Your task to perform on an android device: Clear the cart on ebay.com. Search for macbook air on ebay.com, select the first entry, and add it to the cart. Image 0: 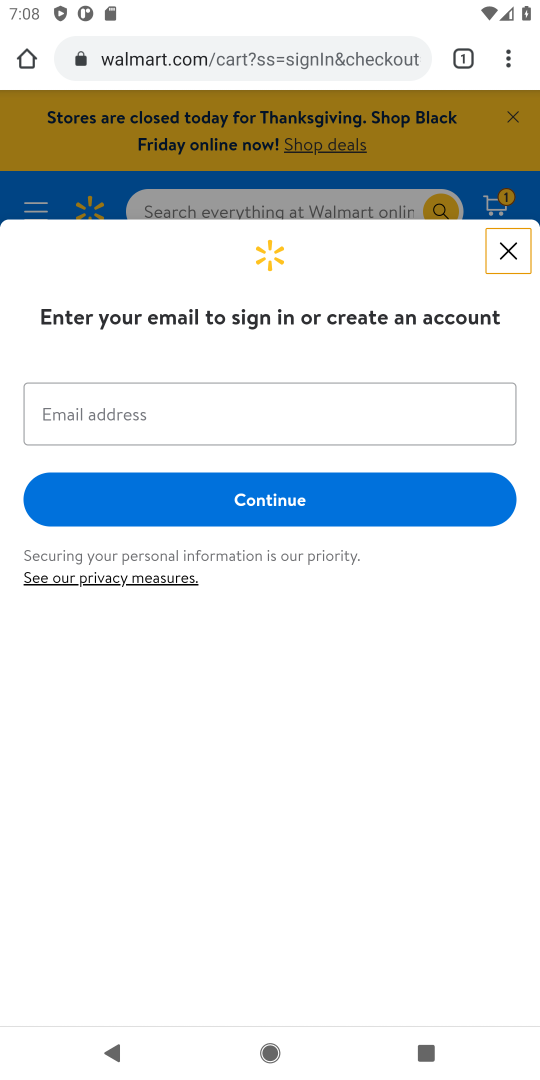
Step 0: click (182, 65)
Your task to perform on an android device: Clear the cart on ebay.com. Search for macbook air on ebay.com, select the first entry, and add it to the cart. Image 1: 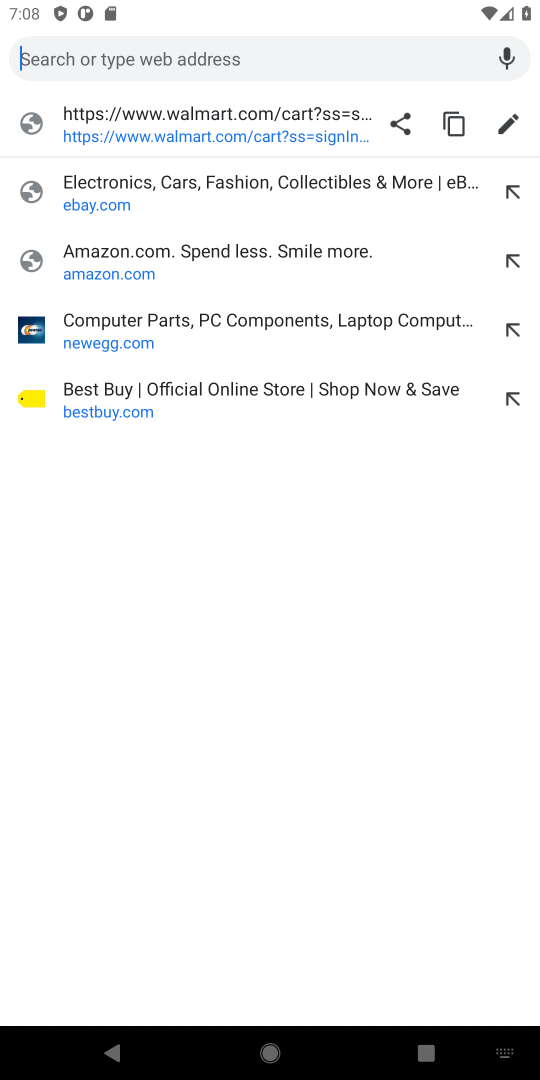
Step 1: click (86, 204)
Your task to perform on an android device: Clear the cart on ebay.com. Search for macbook air on ebay.com, select the first entry, and add it to the cart. Image 2: 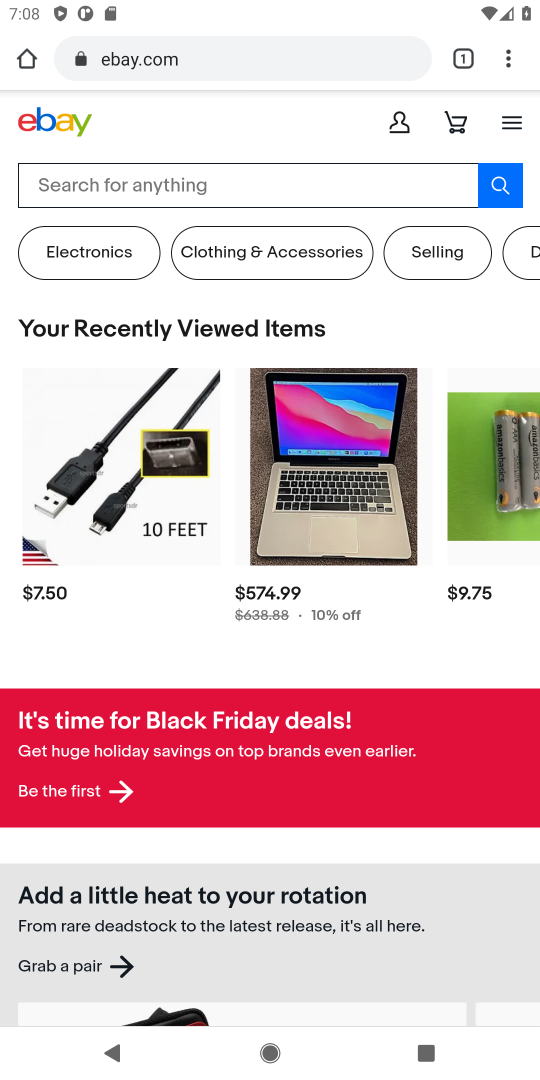
Step 2: click (449, 132)
Your task to perform on an android device: Clear the cart on ebay.com. Search for macbook air on ebay.com, select the first entry, and add it to the cart. Image 3: 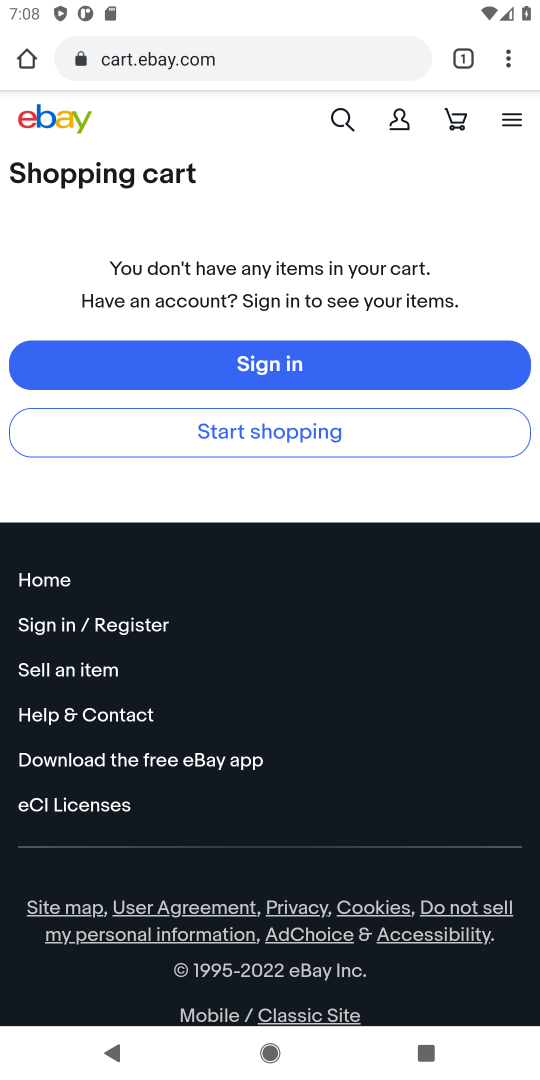
Step 3: click (336, 130)
Your task to perform on an android device: Clear the cart on ebay.com. Search for macbook air on ebay.com, select the first entry, and add it to the cart. Image 4: 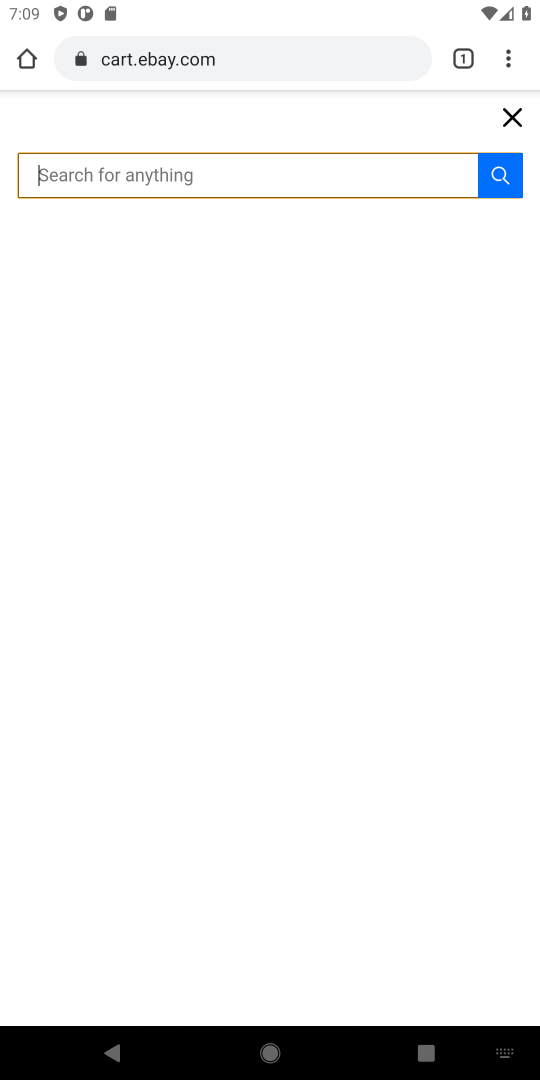
Step 4: type "macbook air"
Your task to perform on an android device: Clear the cart on ebay.com. Search for macbook air on ebay.com, select the first entry, and add it to the cart. Image 5: 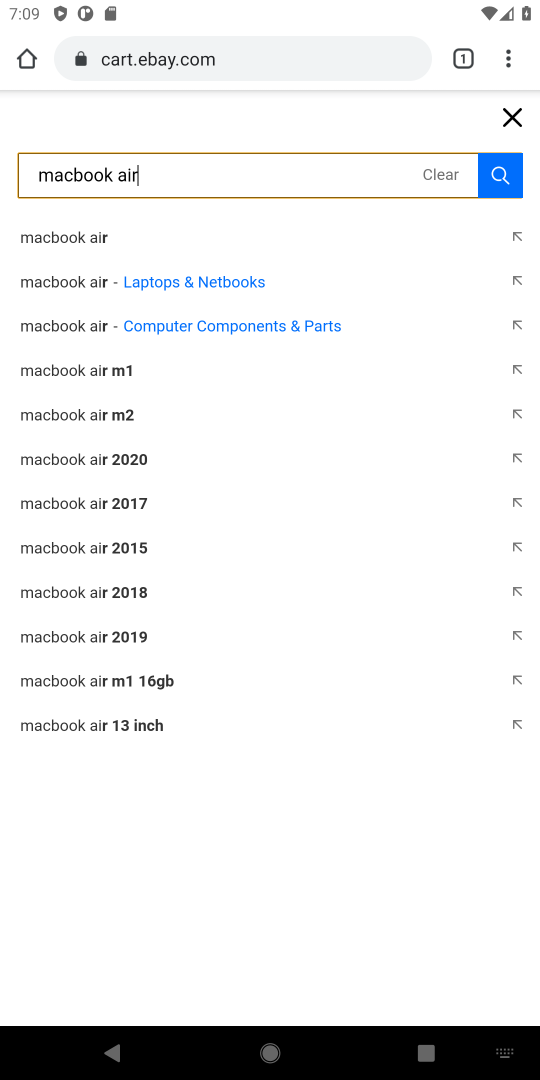
Step 5: click (65, 248)
Your task to perform on an android device: Clear the cart on ebay.com. Search for macbook air on ebay.com, select the first entry, and add it to the cart. Image 6: 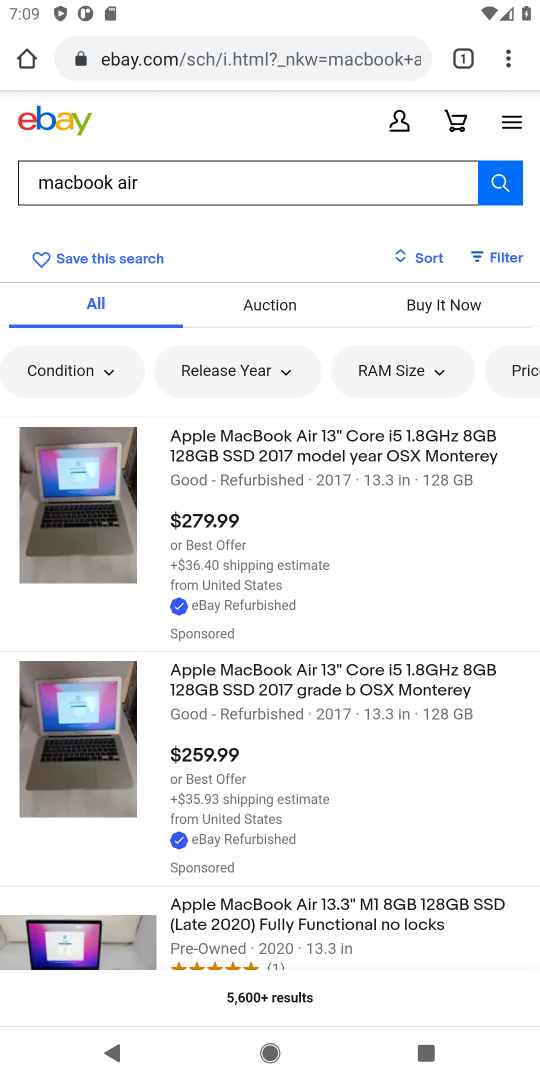
Step 6: click (84, 525)
Your task to perform on an android device: Clear the cart on ebay.com. Search for macbook air on ebay.com, select the first entry, and add it to the cart. Image 7: 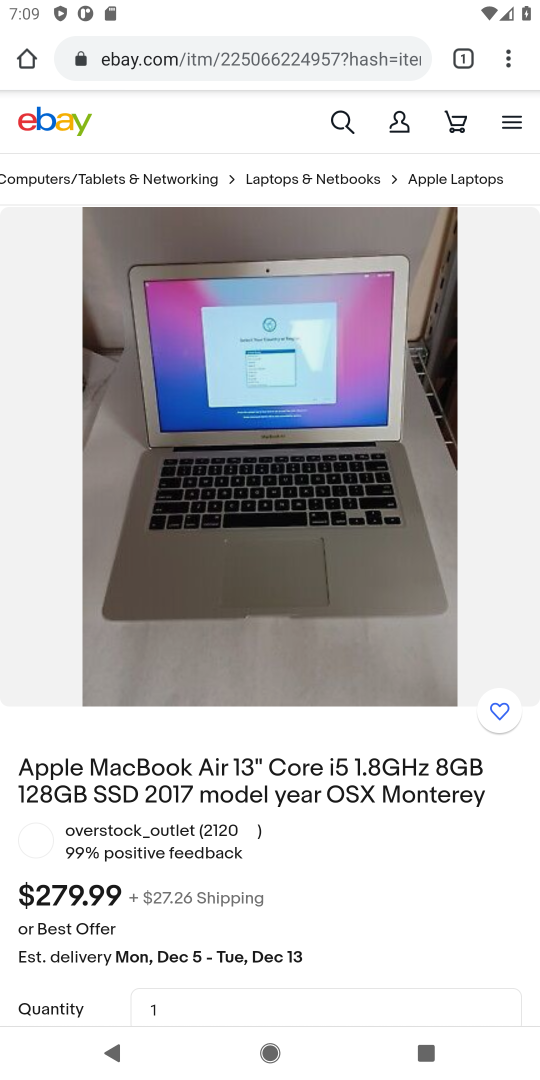
Step 7: drag from (223, 765) to (185, 312)
Your task to perform on an android device: Clear the cart on ebay.com. Search for macbook air on ebay.com, select the first entry, and add it to the cart. Image 8: 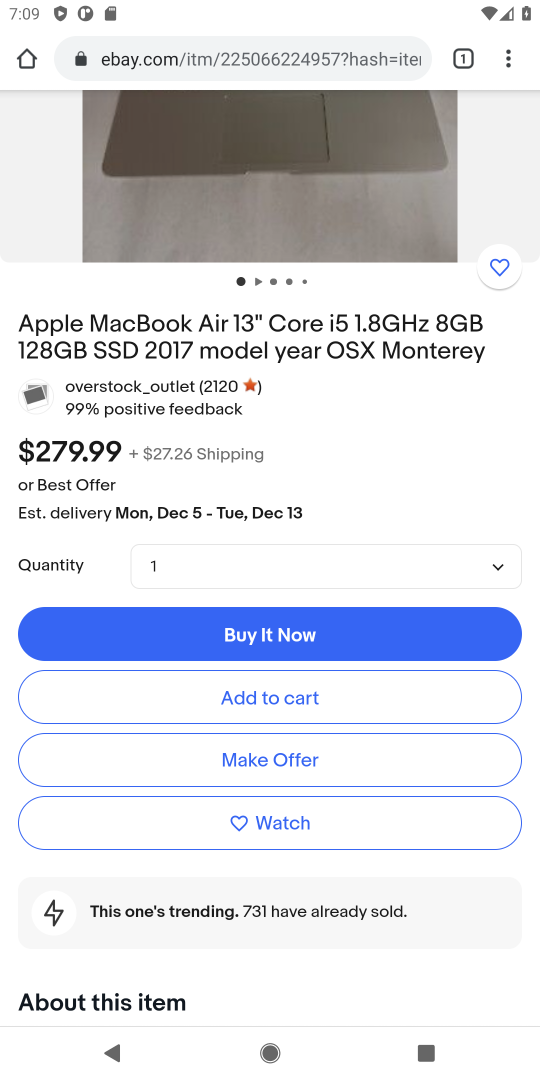
Step 8: click (270, 697)
Your task to perform on an android device: Clear the cart on ebay.com. Search for macbook air on ebay.com, select the first entry, and add it to the cart. Image 9: 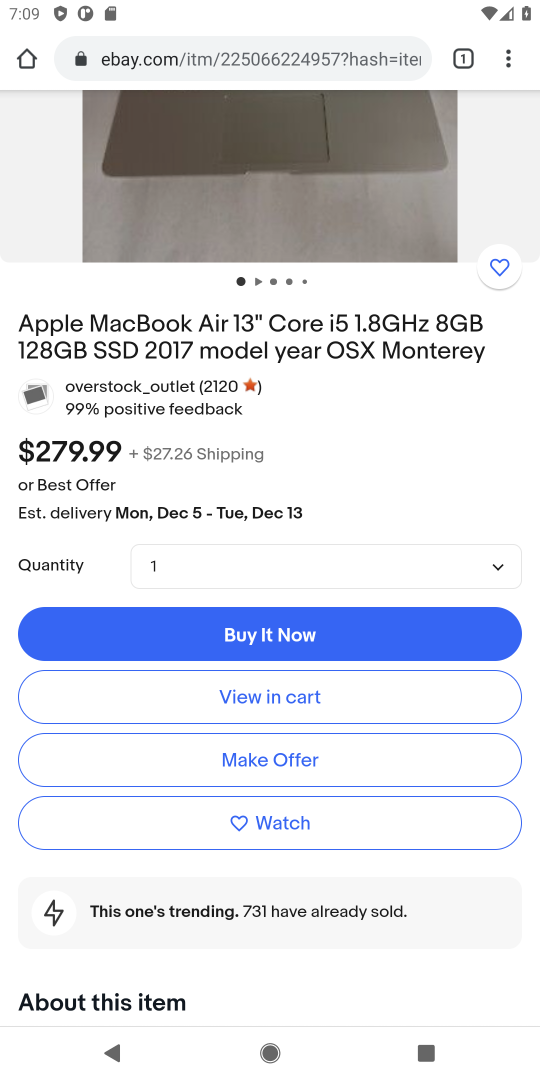
Step 9: task complete